Your task to perform on an android device: toggle notifications settings in the gmail app Image 0: 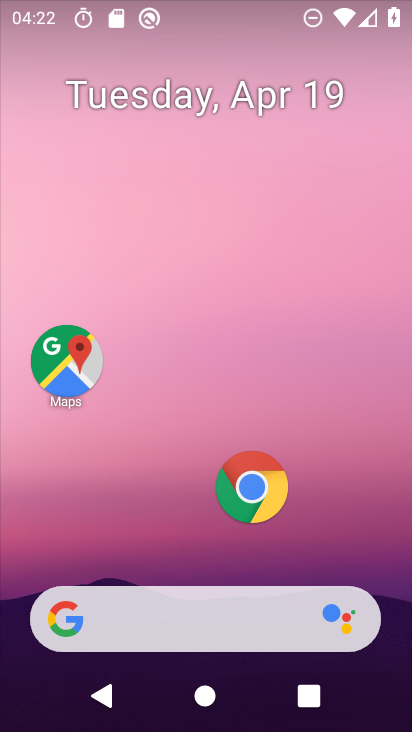
Step 0: drag from (197, 473) to (270, 13)
Your task to perform on an android device: toggle notifications settings in the gmail app Image 1: 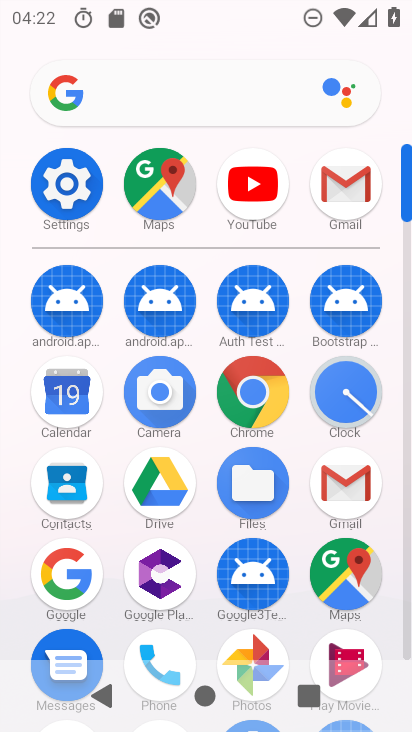
Step 1: click (343, 194)
Your task to perform on an android device: toggle notifications settings in the gmail app Image 2: 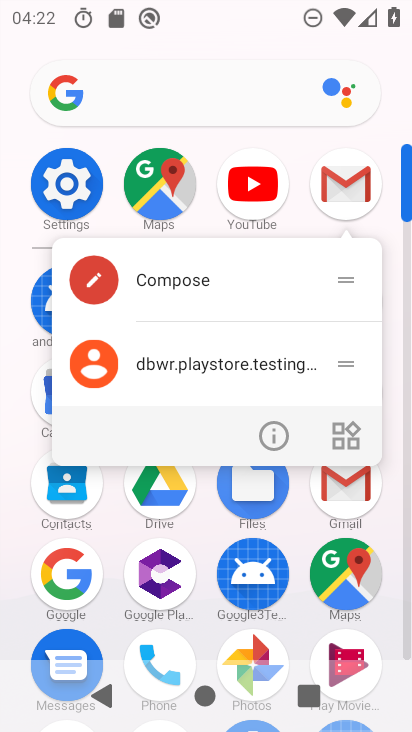
Step 2: click (274, 433)
Your task to perform on an android device: toggle notifications settings in the gmail app Image 3: 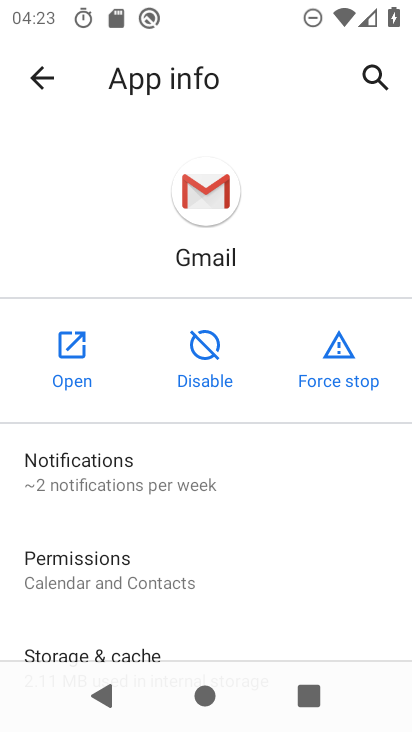
Step 3: click (132, 464)
Your task to perform on an android device: toggle notifications settings in the gmail app Image 4: 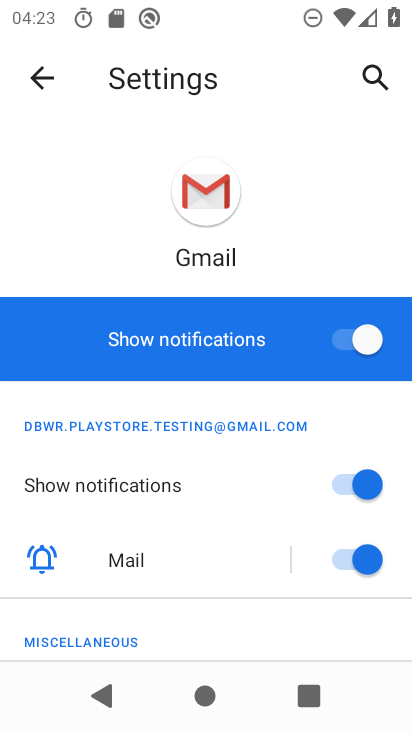
Step 4: click (364, 336)
Your task to perform on an android device: toggle notifications settings in the gmail app Image 5: 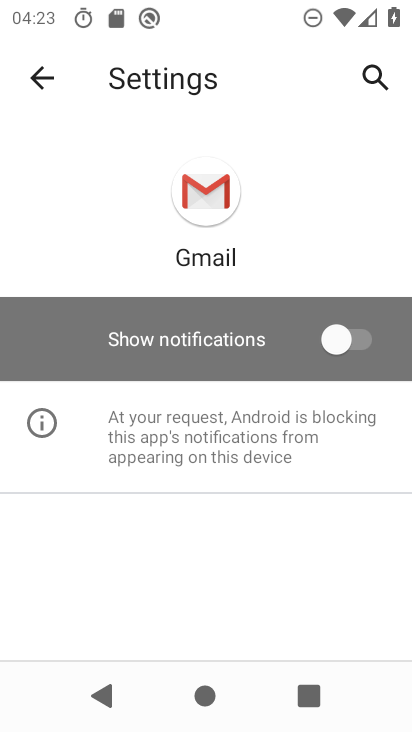
Step 5: task complete